Your task to perform on an android device: Show me productivity apps on the Play Store Image 0: 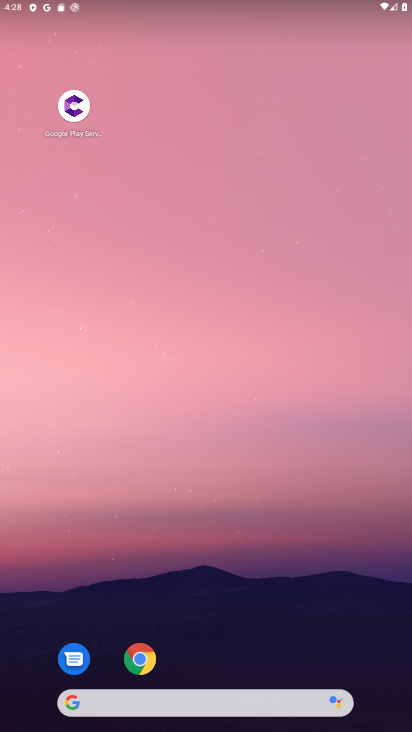
Step 0: drag from (199, 668) to (264, 75)
Your task to perform on an android device: Show me productivity apps on the Play Store Image 1: 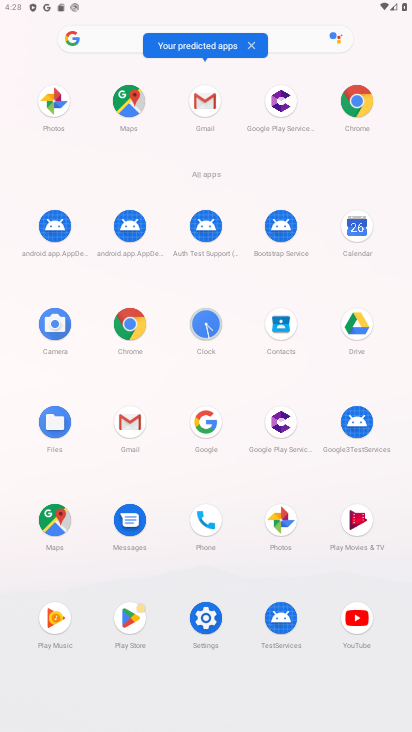
Step 1: click (132, 615)
Your task to perform on an android device: Show me productivity apps on the Play Store Image 2: 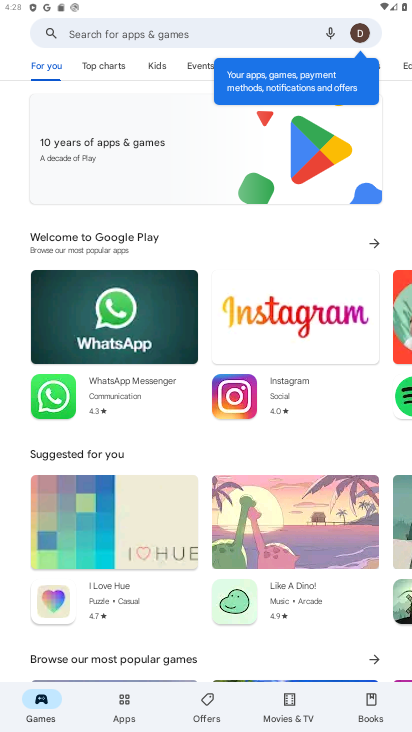
Step 2: click (126, 696)
Your task to perform on an android device: Show me productivity apps on the Play Store Image 3: 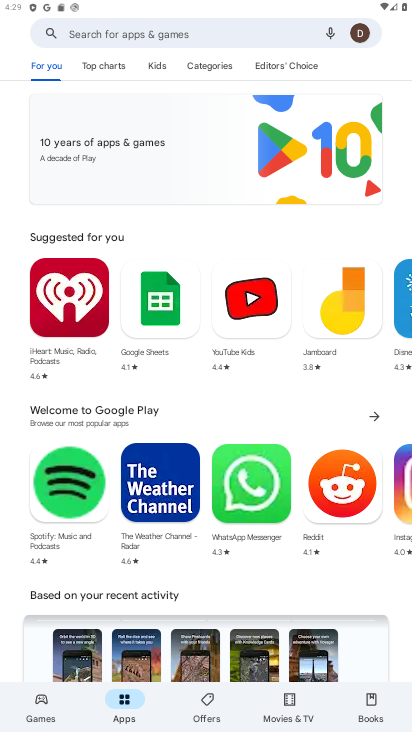
Step 3: click (197, 67)
Your task to perform on an android device: Show me productivity apps on the Play Store Image 4: 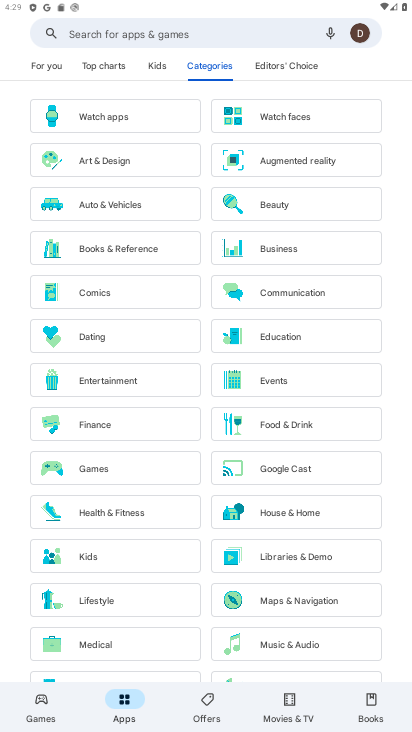
Step 4: drag from (106, 618) to (118, 139)
Your task to perform on an android device: Show me productivity apps on the Play Store Image 5: 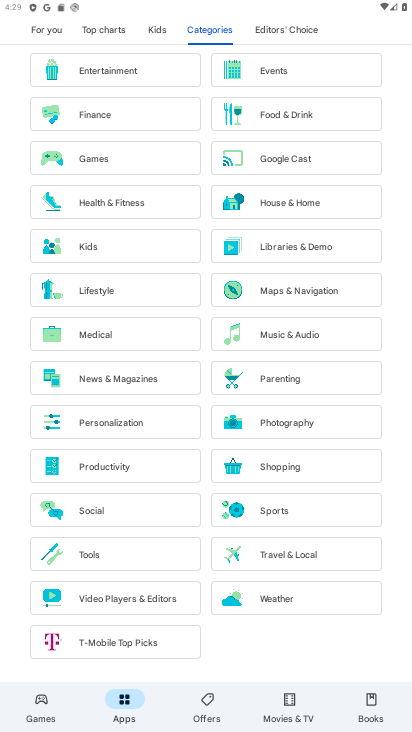
Step 5: click (125, 466)
Your task to perform on an android device: Show me productivity apps on the Play Store Image 6: 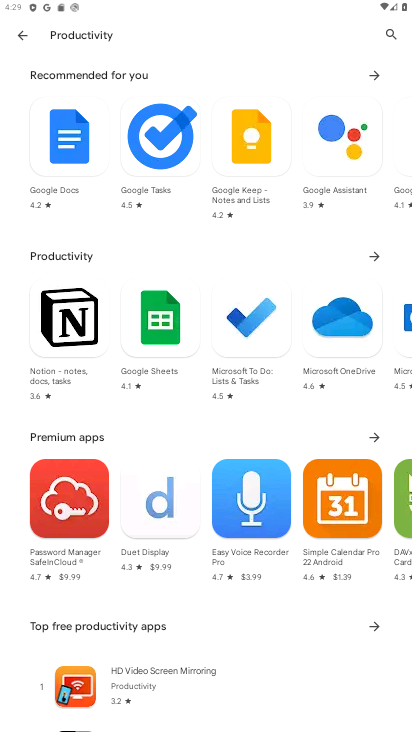
Step 6: task complete